Your task to perform on an android device: Go to ESPN.com Image 0: 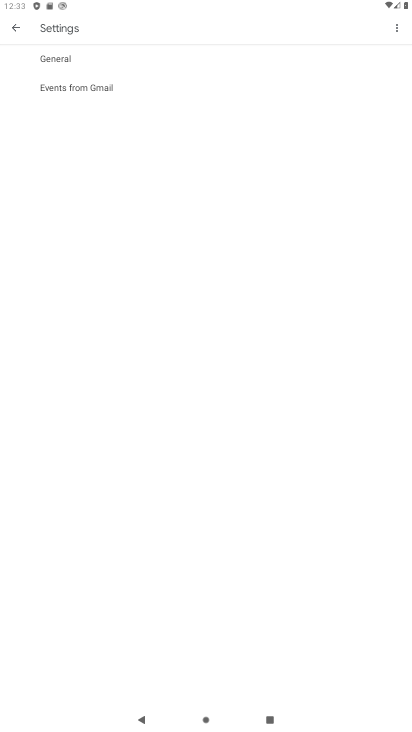
Step 0: press home button
Your task to perform on an android device: Go to ESPN.com Image 1: 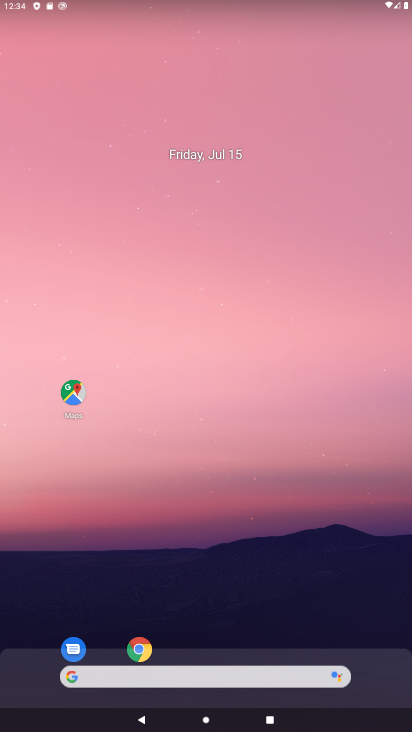
Step 1: drag from (254, 637) to (216, 375)
Your task to perform on an android device: Go to ESPN.com Image 2: 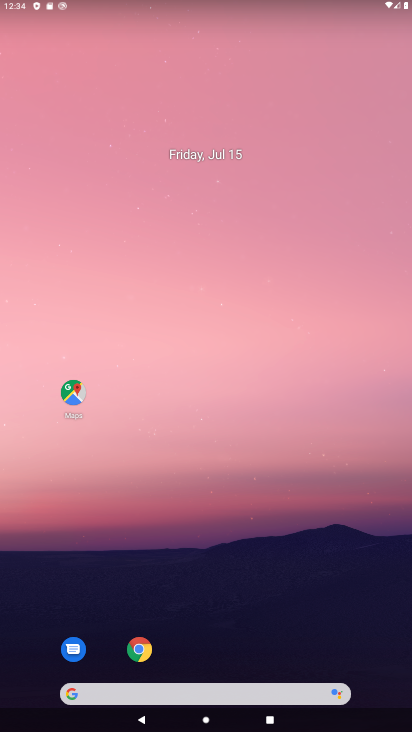
Step 2: drag from (198, 657) to (207, 107)
Your task to perform on an android device: Go to ESPN.com Image 3: 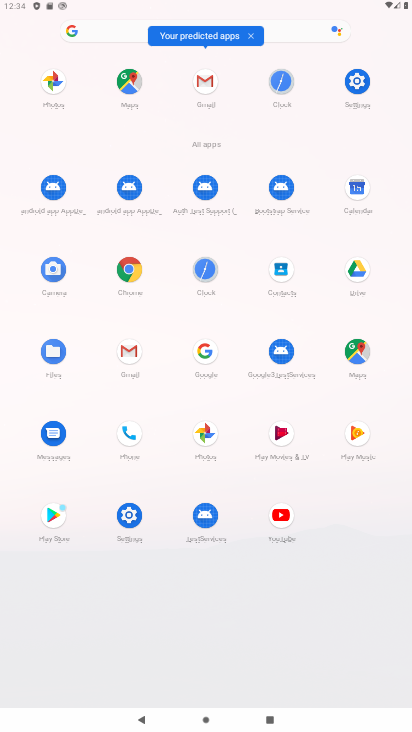
Step 3: click (124, 270)
Your task to perform on an android device: Go to ESPN.com Image 4: 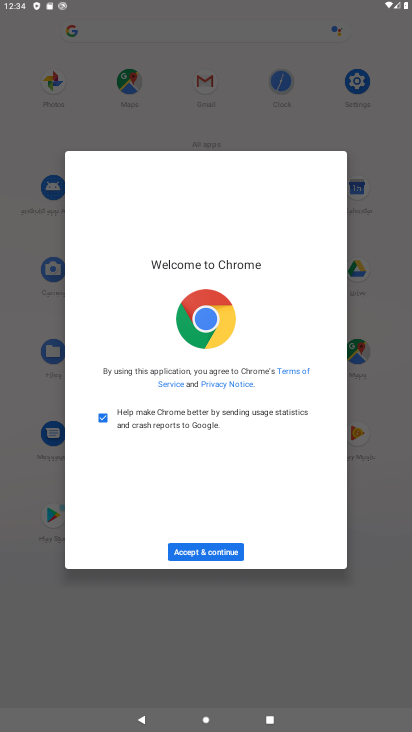
Step 4: click (215, 549)
Your task to perform on an android device: Go to ESPN.com Image 5: 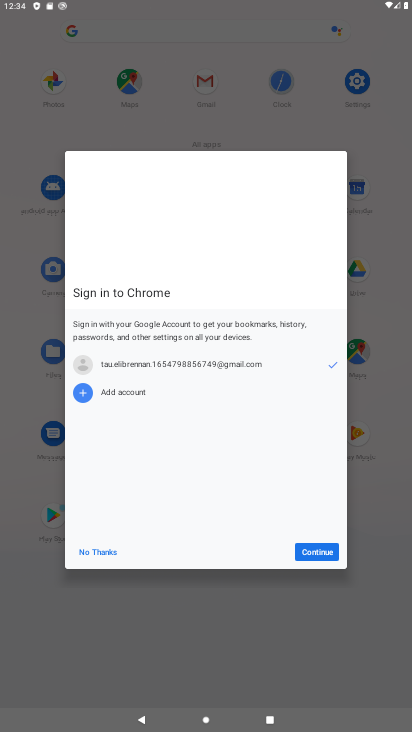
Step 5: click (304, 549)
Your task to perform on an android device: Go to ESPN.com Image 6: 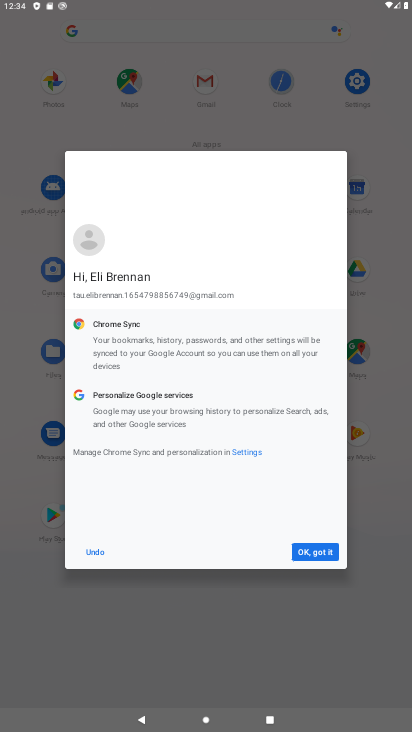
Step 6: click (320, 547)
Your task to perform on an android device: Go to ESPN.com Image 7: 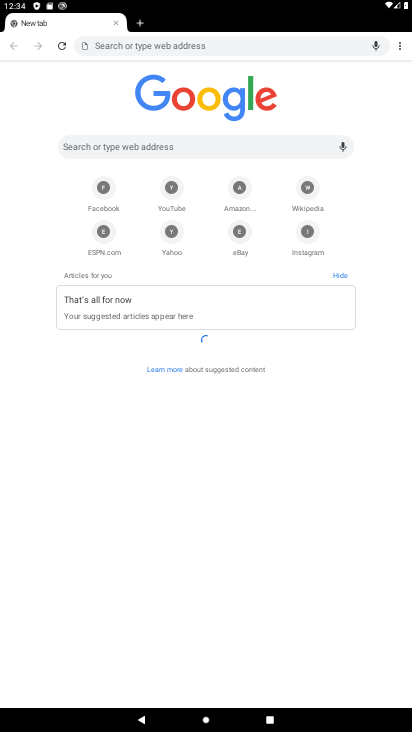
Step 7: click (102, 232)
Your task to perform on an android device: Go to ESPN.com Image 8: 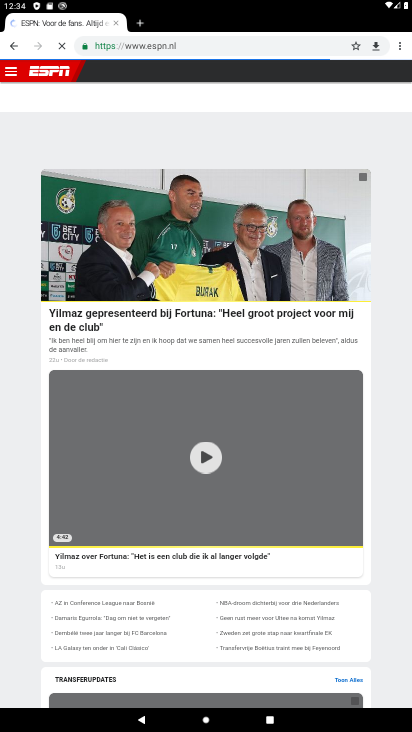
Step 8: task complete